Your task to perform on an android device: Search for a nice rug on Crate & Barrel Image 0: 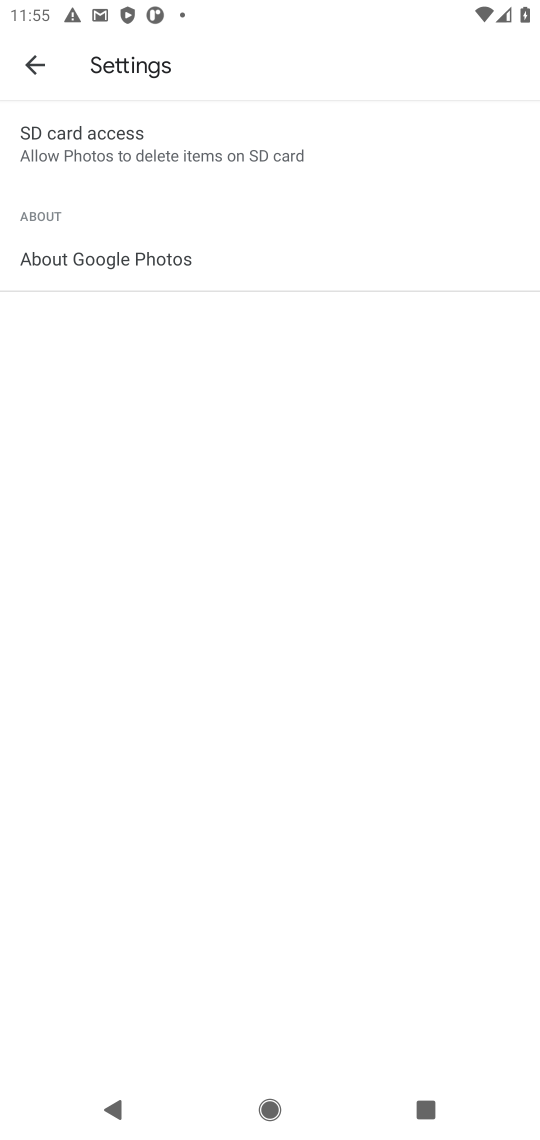
Step 0: click (45, 57)
Your task to perform on an android device: Search for a nice rug on Crate & Barrel Image 1: 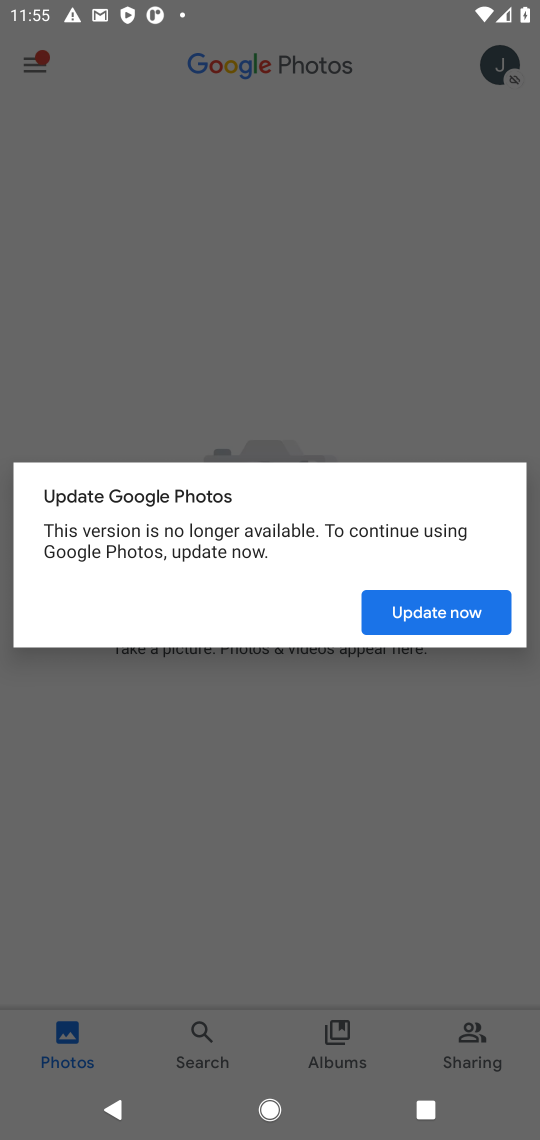
Step 1: press home button
Your task to perform on an android device: Search for a nice rug on Crate & Barrel Image 2: 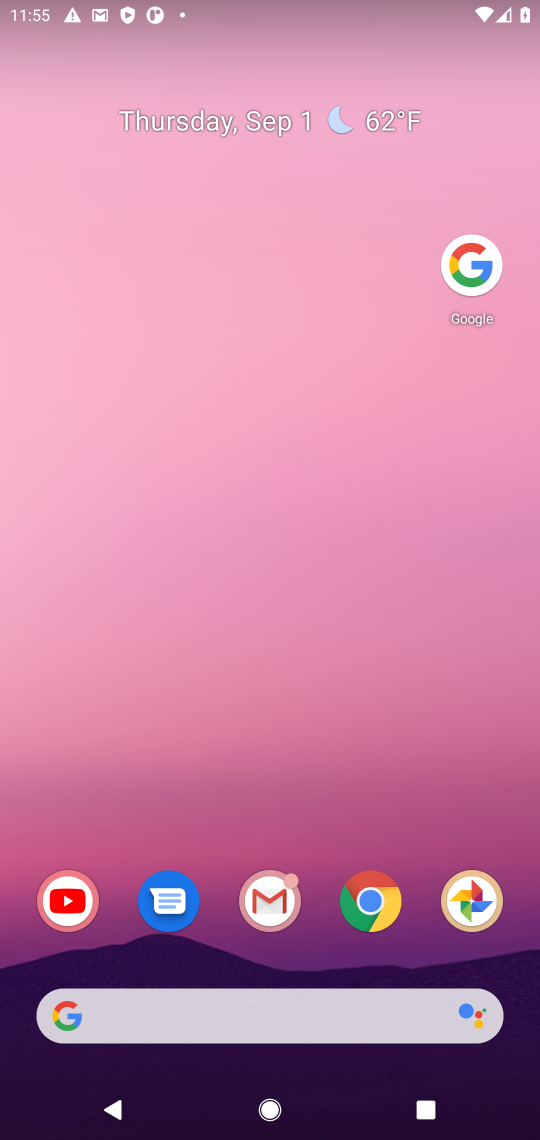
Step 2: click (464, 264)
Your task to perform on an android device: Search for a nice rug on Crate & Barrel Image 3: 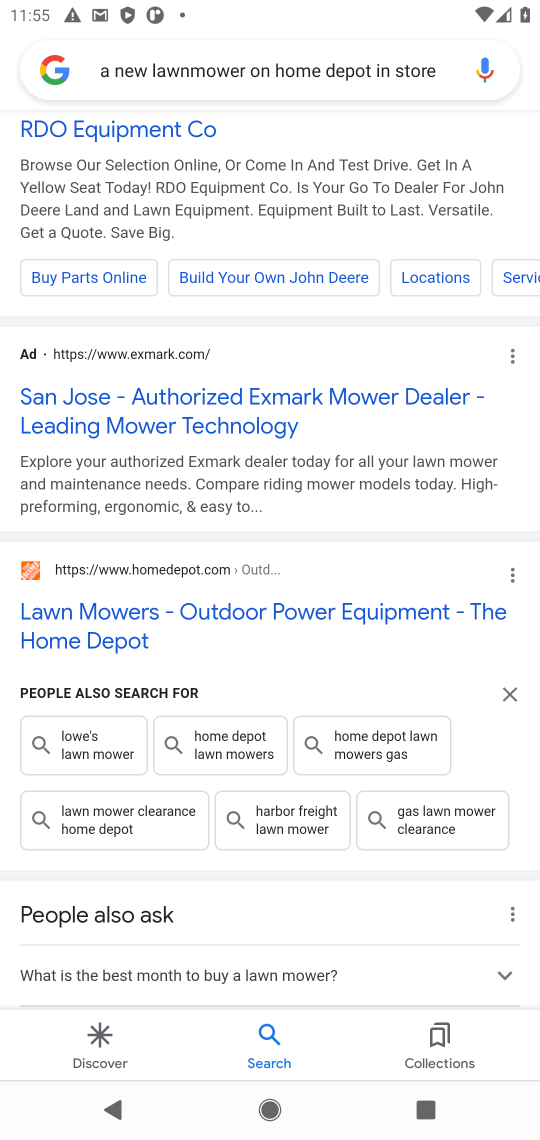
Step 3: click (330, 55)
Your task to perform on an android device: Search for a nice rug on Crate & Barrel Image 4: 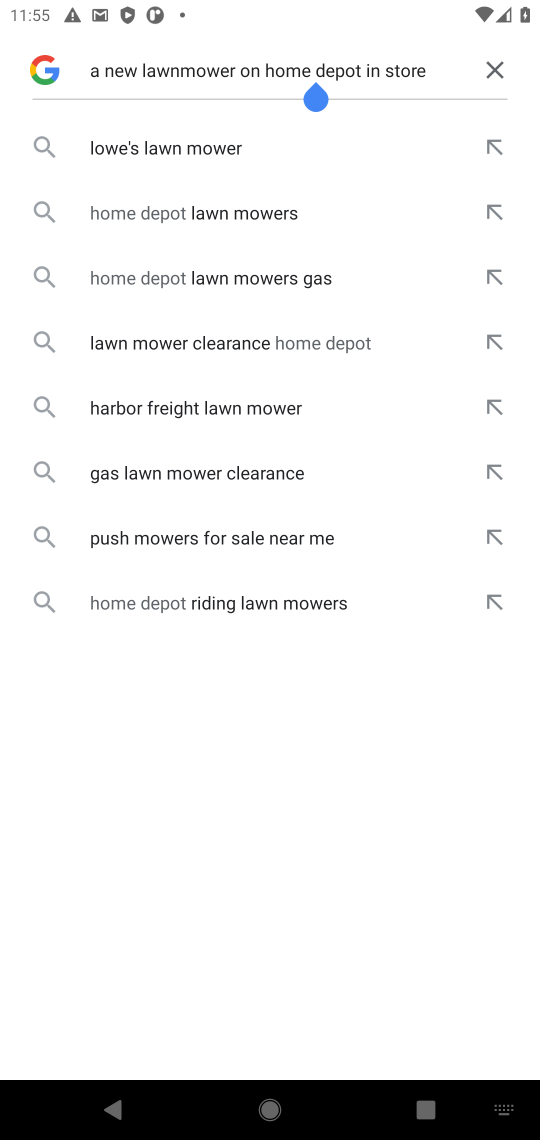
Step 4: click (484, 76)
Your task to perform on an android device: Search for a nice rug on Crate & Barrel Image 5: 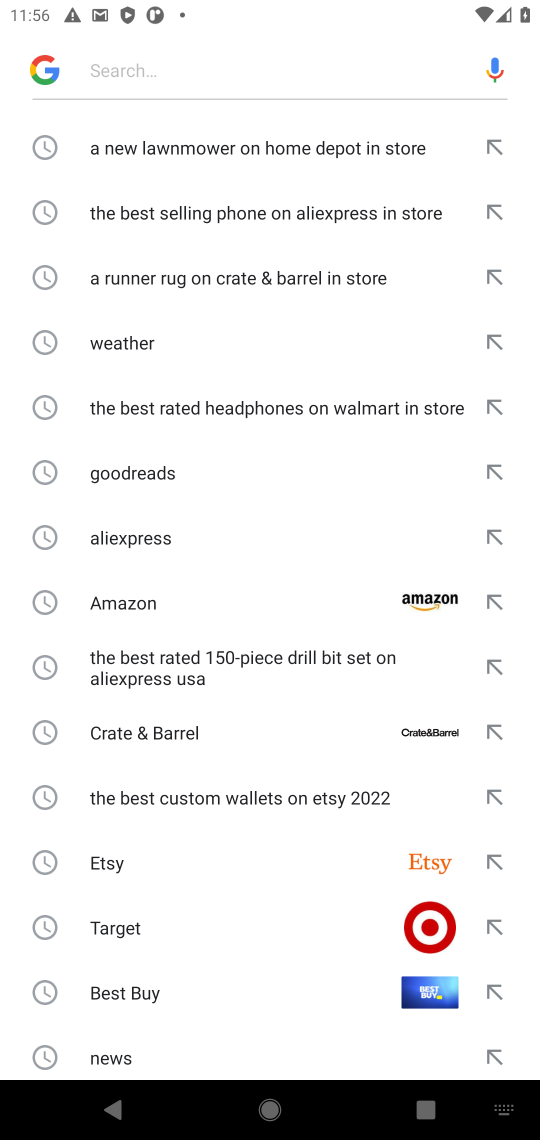
Step 5: click (235, 74)
Your task to perform on an android device: Search for a nice rug on Crate & Barrel Image 6: 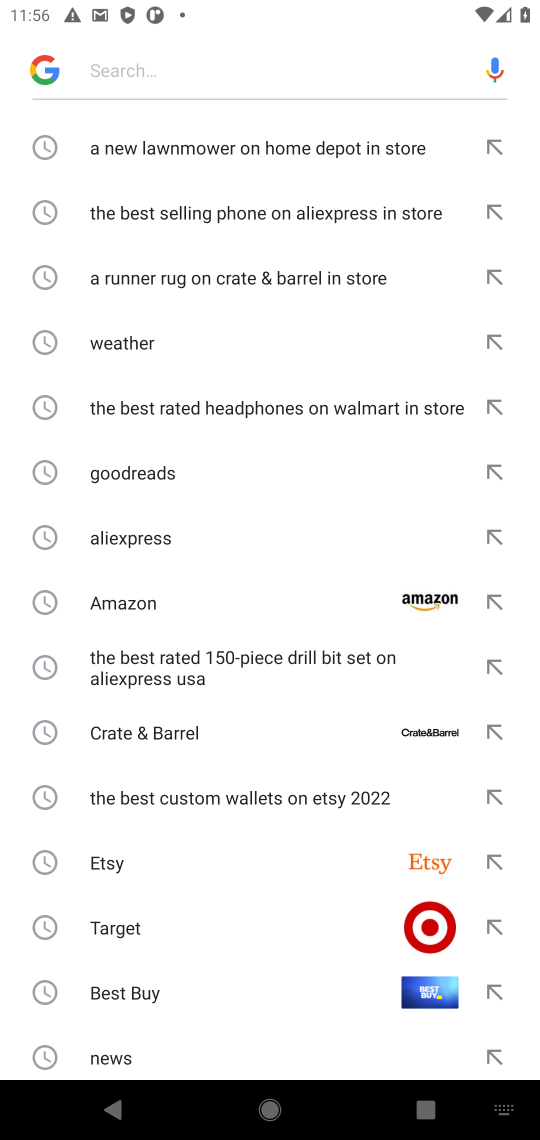
Step 6: type "a nice rug on Crate & Barrel "
Your task to perform on an android device: Search for a nice rug on Crate & Barrel Image 7: 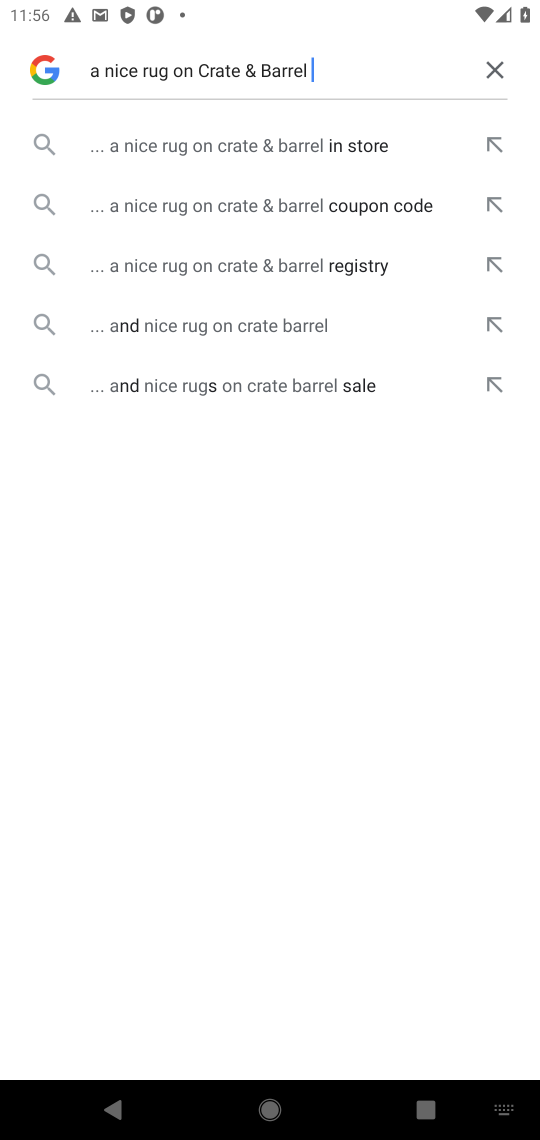
Step 7: click (242, 155)
Your task to perform on an android device: Search for a nice rug on Crate & Barrel Image 8: 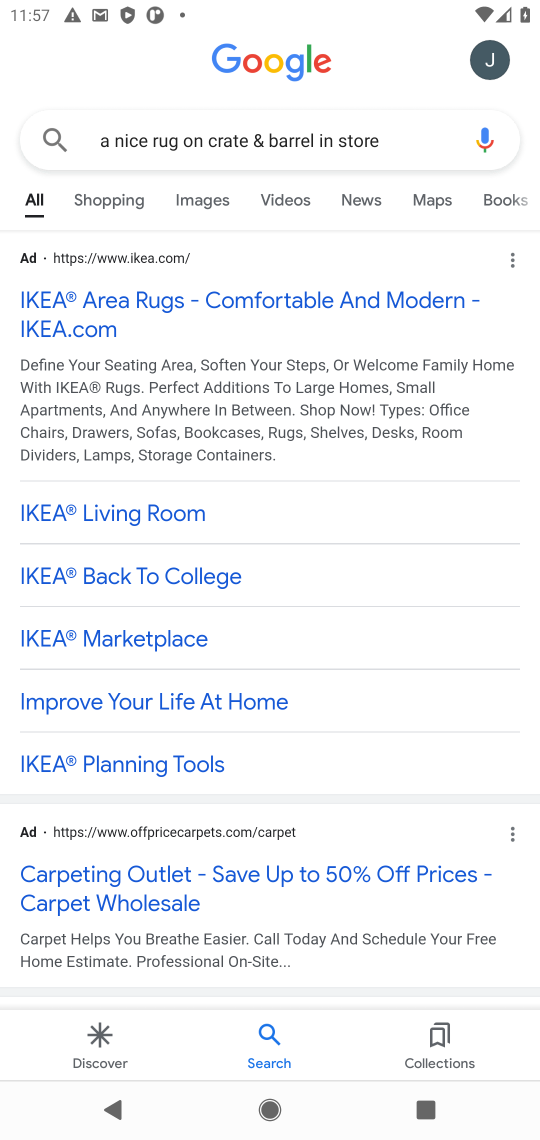
Step 8: drag from (293, 903) to (404, 315)
Your task to perform on an android device: Search for a nice rug on Crate & Barrel Image 9: 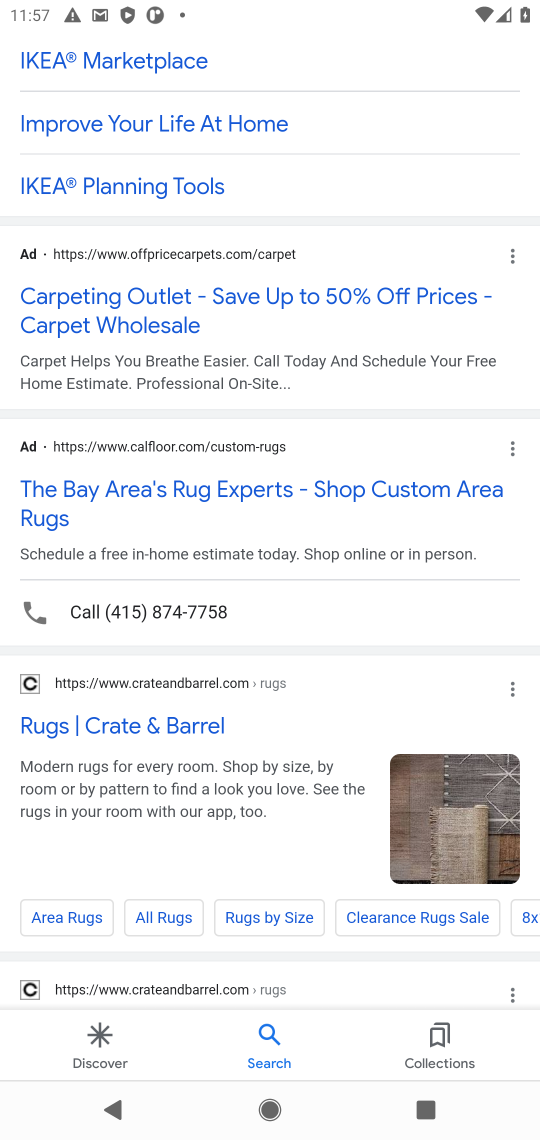
Step 9: click (131, 731)
Your task to perform on an android device: Search for a nice rug on Crate & Barrel Image 10: 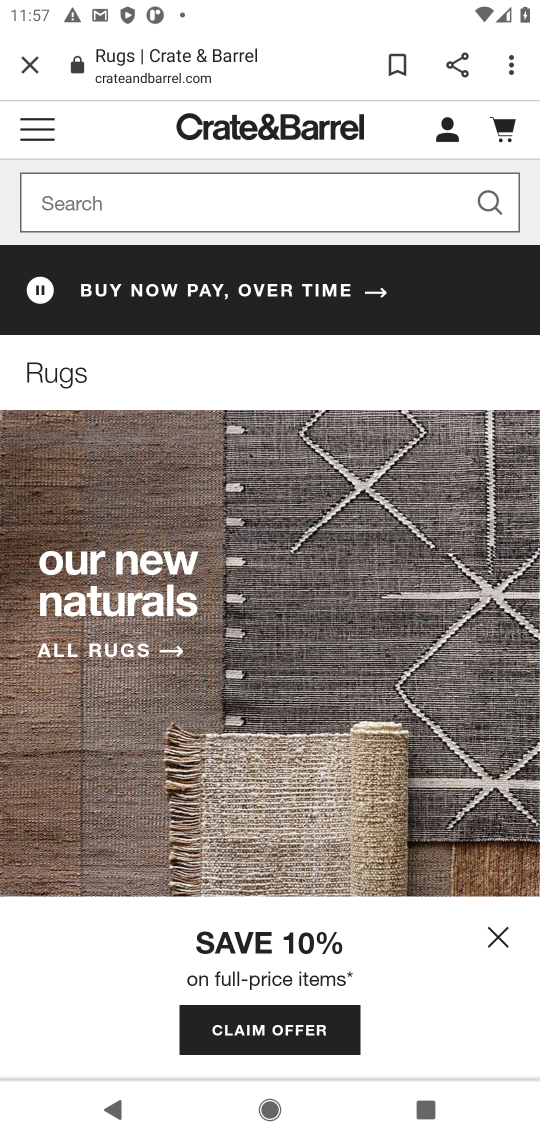
Step 10: task complete